Your task to perform on an android device: delete browsing data in the chrome app Image 0: 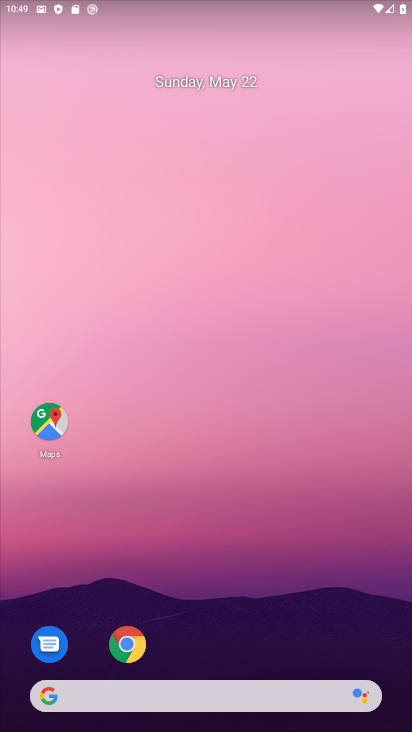
Step 0: press home button
Your task to perform on an android device: delete browsing data in the chrome app Image 1: 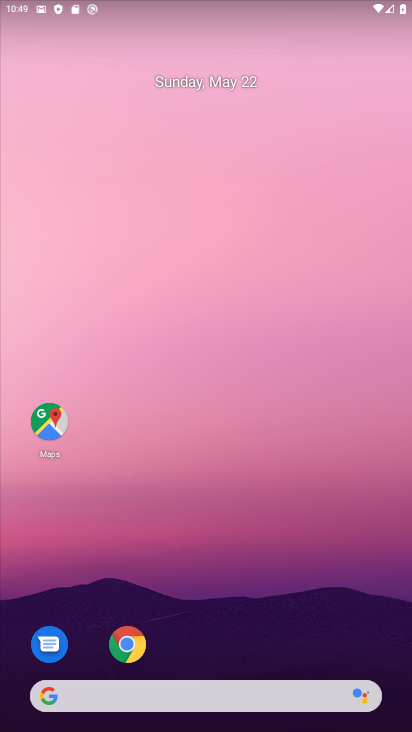
Step 1: click (126, 637)
Your task to perform on an android device: delete browsing data in the chrome app Image 2: 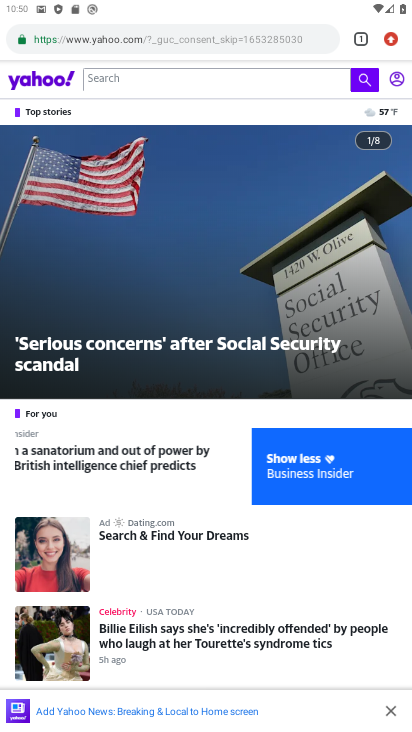
Step 2: click (397, 39)
Your task to perform on an android device: delete browsing data in the chrome app Image 3: 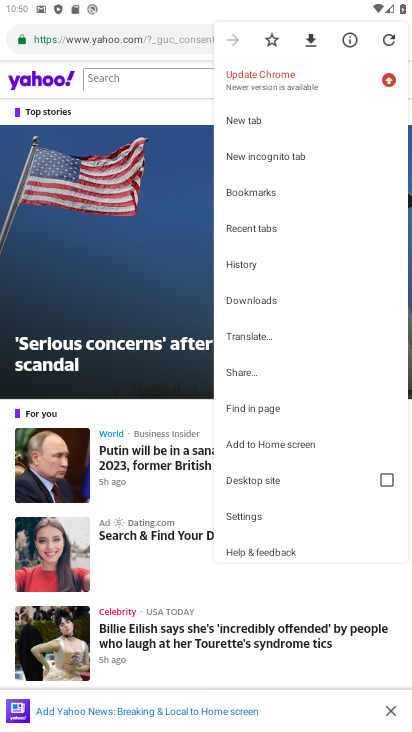
Step 3: click (264, 266)
Your task to perform on an android device: delete browsing data in the chrome app Image 4: 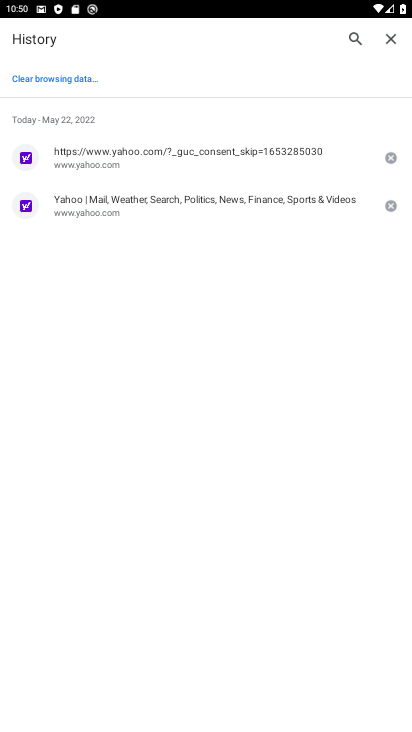
Step 4: click (58, 75)
Your task to perform on an android device: delete browsing data in the chrome app Image 5: 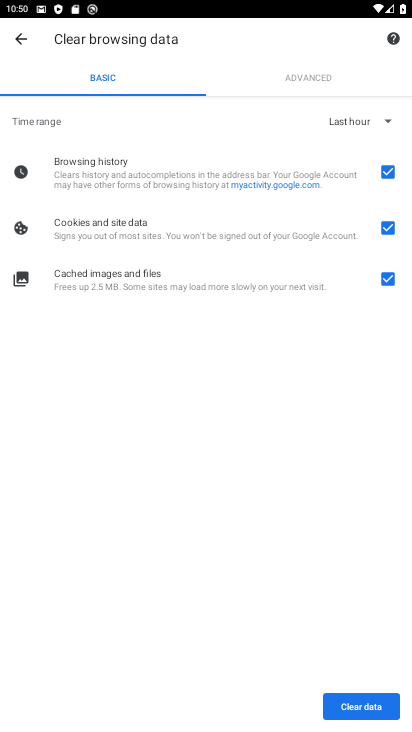
Step 5: click (359, 705)
Your task to perform on an android device: delete browsing data in the chrome app Image 6: 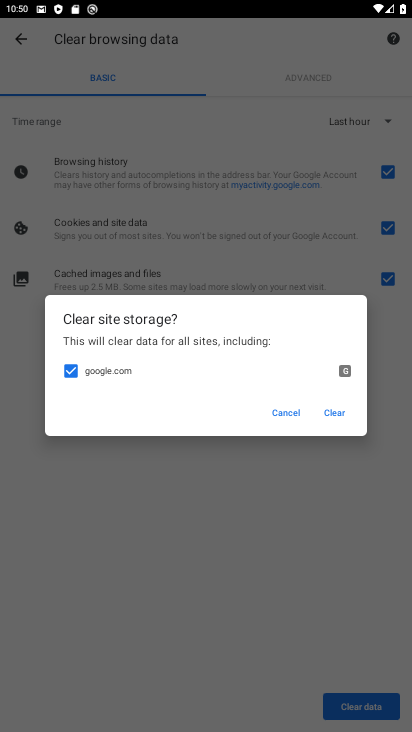
Step 6: click (329, 411)
Your task to perform on an android device: delete browsing data in the chrome app Image 7: 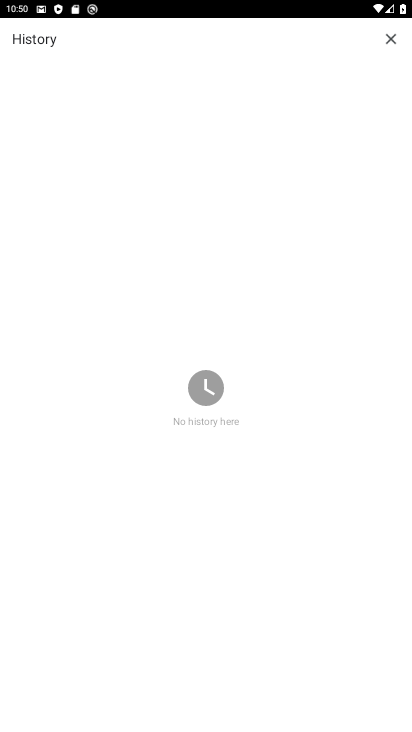
Step 7: task complete